Your task to perform on an android device: turn on translation in the chrome app Image 0: 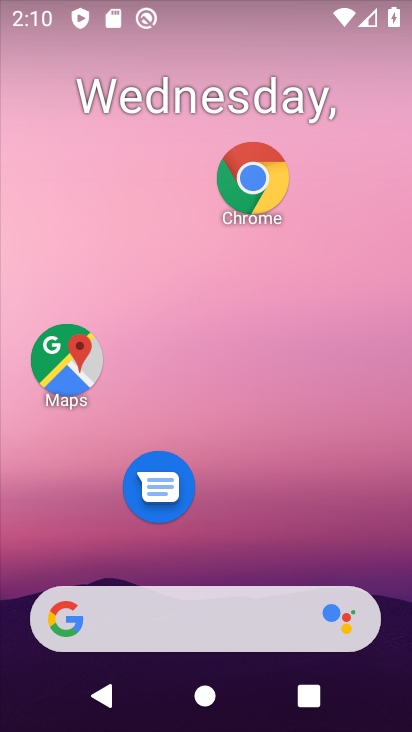
Step 0: click (255, 201)
Your task to perform on an android device: turn on translation in the chrome app Image 1: 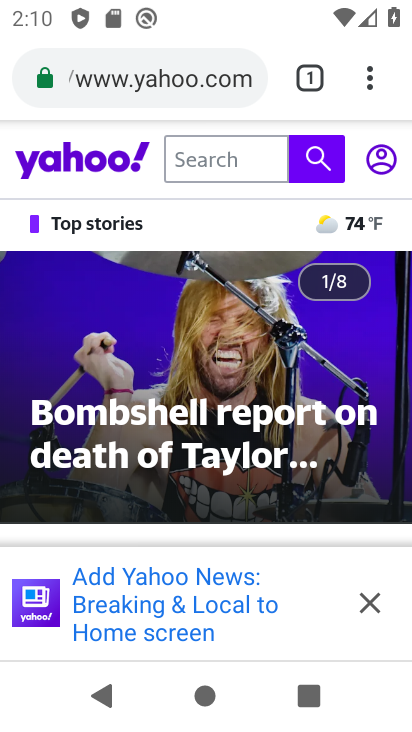
Step 1: click (380, 75)
Your task to perform on an android device: turn on translation in the chrome app Image 2: 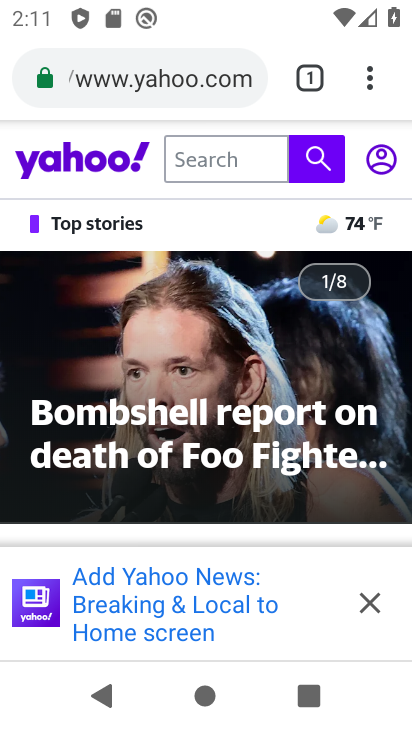
Step 2: click (376, 87)
Your task to perform on an android device: turn on translation in the chrome app Image 3: 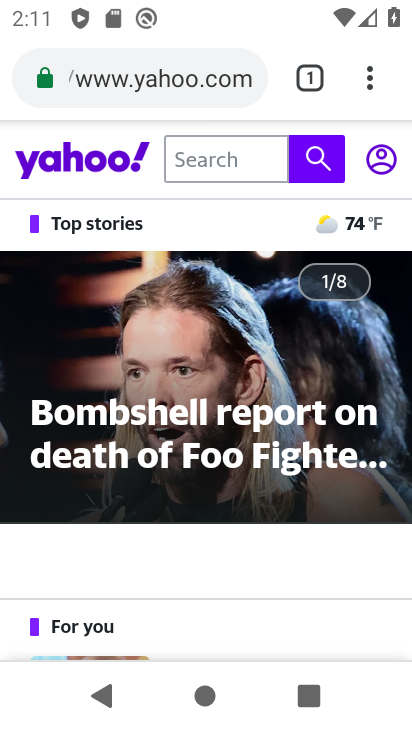
Step 3: click (367, 82)
Your task to perform on an android device: turn on translation in the chrome app Image 4: 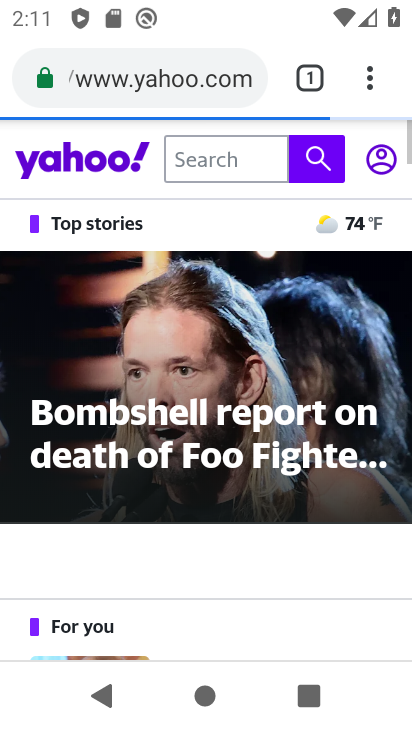
Step 4: click (367, 82)
Your task to perform on an android device: turn on translation in the chrome app Image 5: 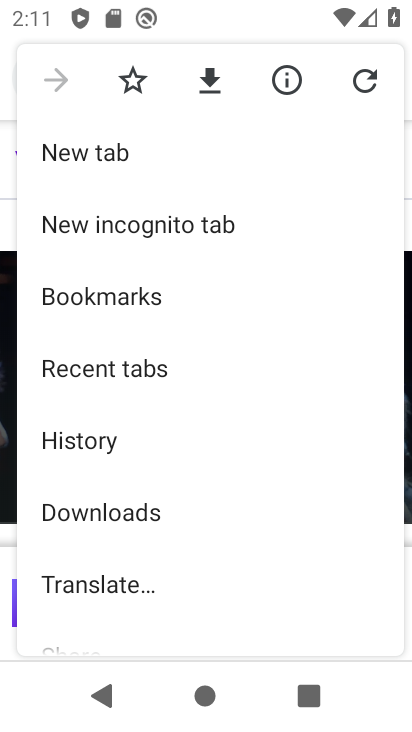
Step 5: drag from (130, 548) to (151, 15)
Your task to perform on an android device: turn on translation in the chrome app Image 6: 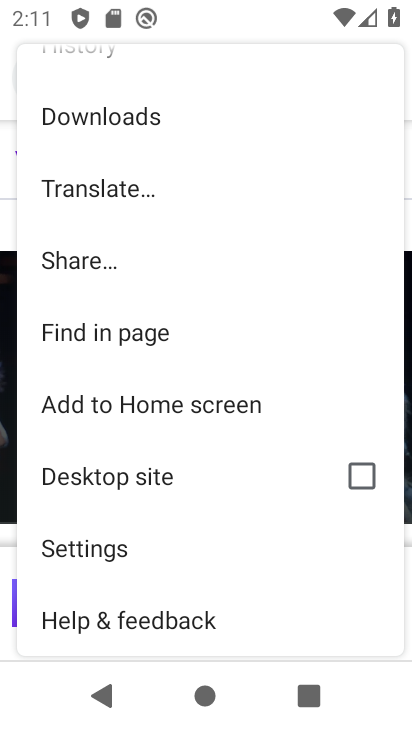
Step 6: click (113, 543)
Your task to perform on an android device: turn on translation in the chrome app Image 7: 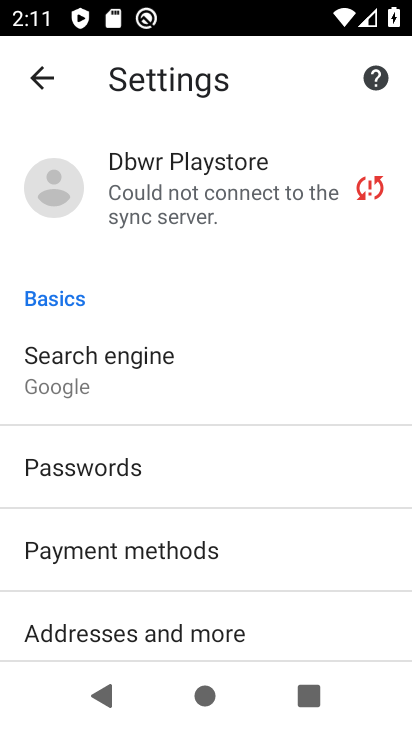
Step 7: drag from (201, 597) to (216, 166)
Your task to perform on an android device: turn on translation in the chrome app Image 8: 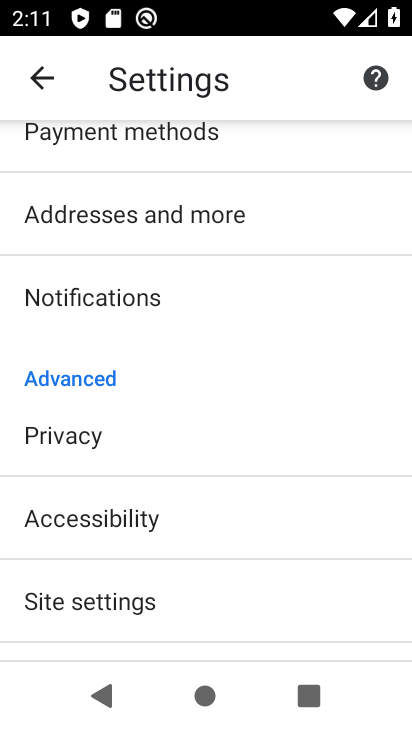
Step 8: drag from (258, 611) to (276, 216)
Your task to perform on an android device: turn on translation in the chrome app Image 9: 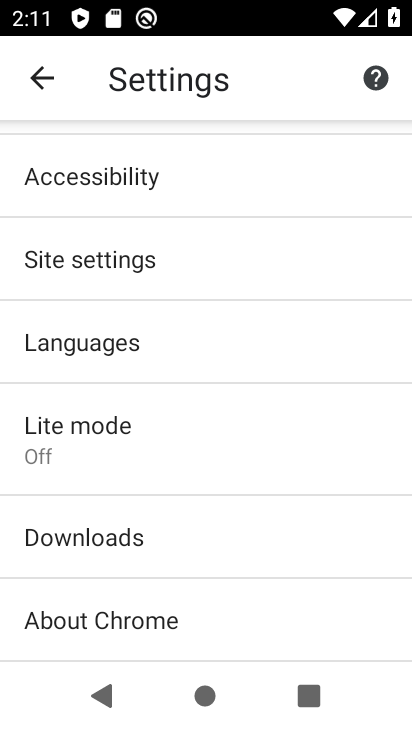
Step 9: click (148, 339)
Your task to perform on an android device: turn on translation in the chrome app Image 10: 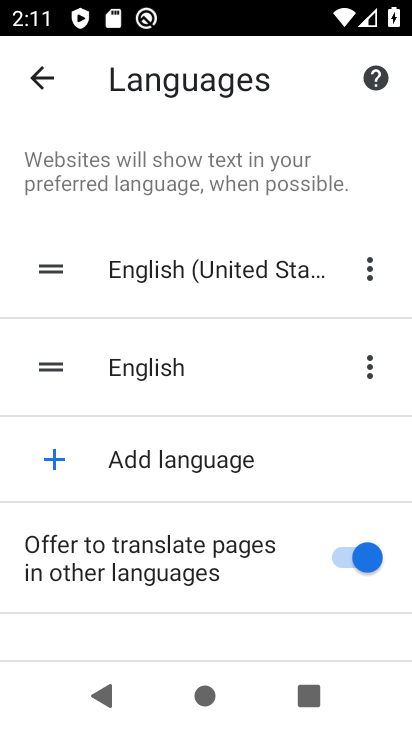
Step 10: task complete